Your task to perform on an android device: What's the weather going to be this weekend? Image 0: 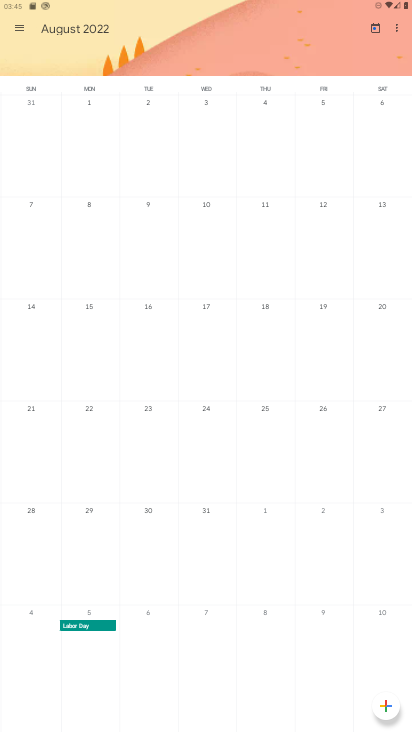
Step 0: press home button
Your task to perform on an android device: What's the weather going to be this weekend? Image 1: 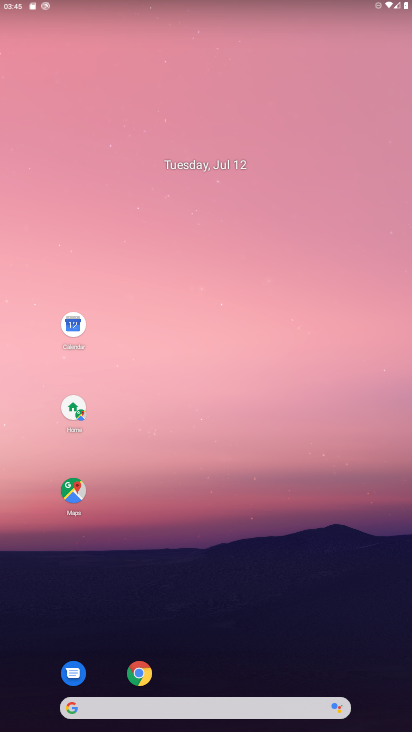
Step 1: drag from (203, 676) to (147, 285)
Your task to perform on an android device: What's the weather going to be this weekend? Image 2: 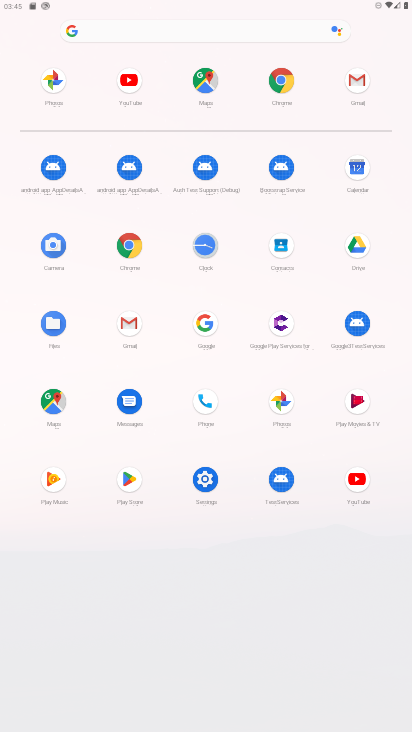
Step 2: click (269, 71)
Your task to perform on an android device: What's the weather going to be this weekend? Image 3: 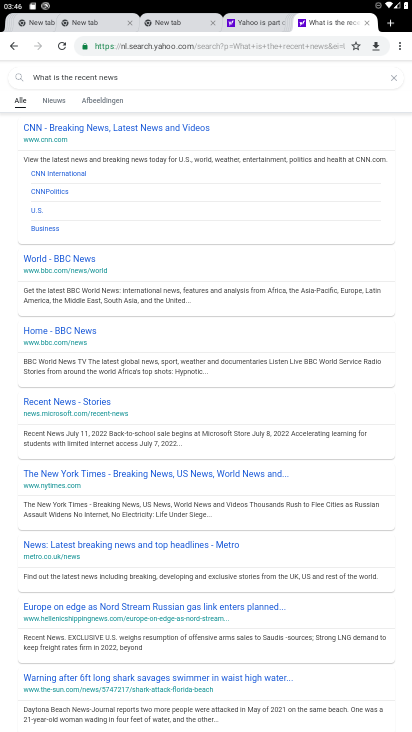
Step 3: click (402, 18)
Your task to perform on an android device: What's the weather going to be this weekend? Image 4: 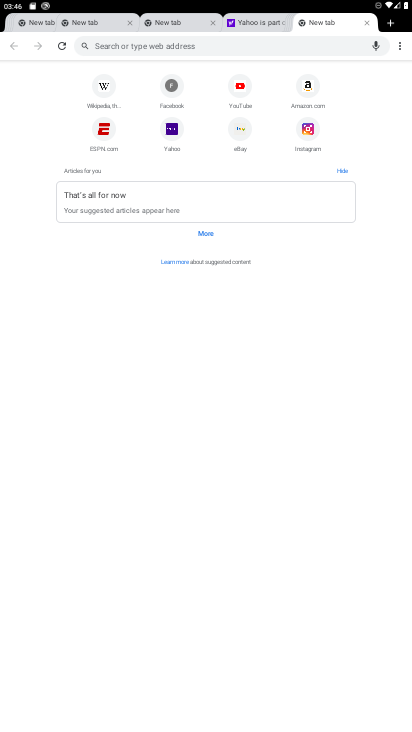
Step 4: click (258, 36)
Your task to perform on an android device: What's the weather going to be this weekend? Image 5: 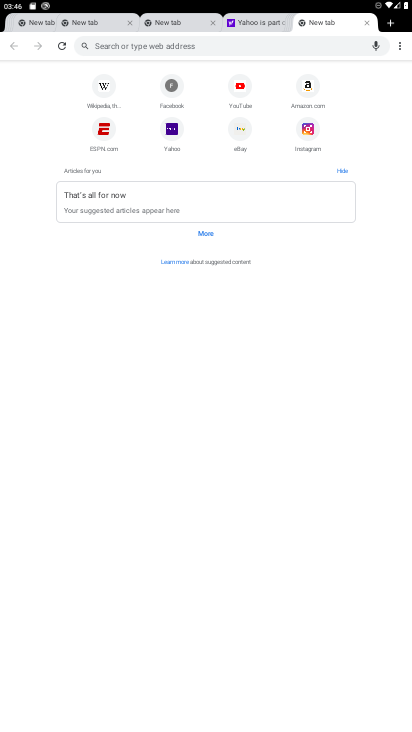
Step 5: type "What's the weather going to be this weekend "
Your task to perform on an android device: What's the weather going to be this weekend? Image 6: 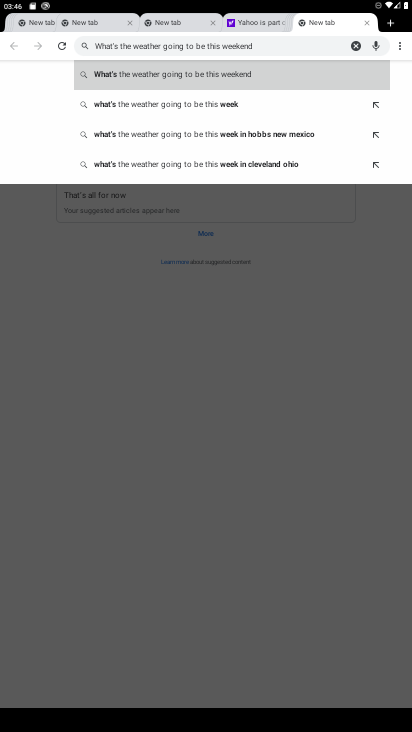
Step 6: click (161, 72)
Your task to perform on an android device: What's the weather going to be this weekend? Image 7: 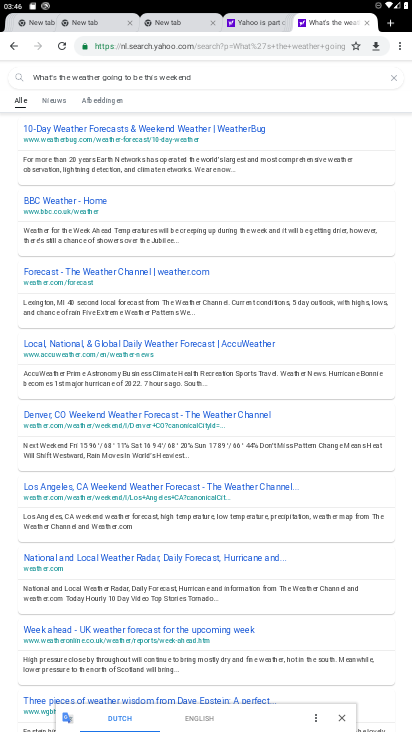
Step 7: task complete